Your task to perform on an android device: Go to CNN.com Image 0: 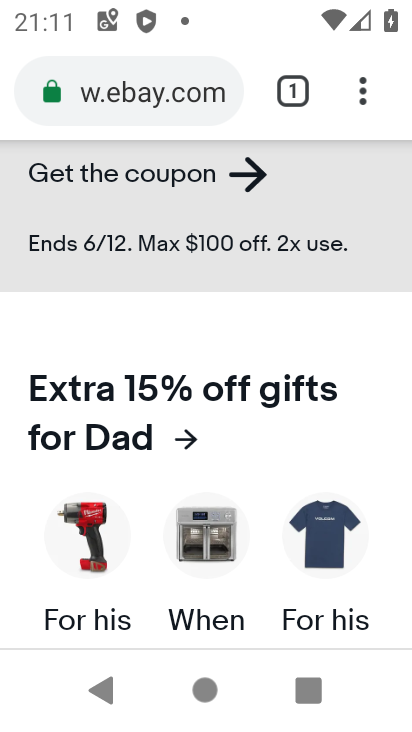
Step 0: press home button
Your task to perform on an android device: Go to CNN.com Image 1: 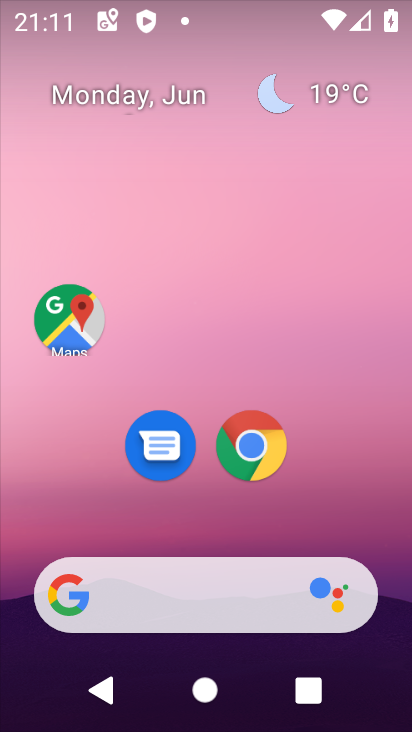
Step 1: click (257, 435)
Your task to perform on an android device: Go to CNN.com Image 2: 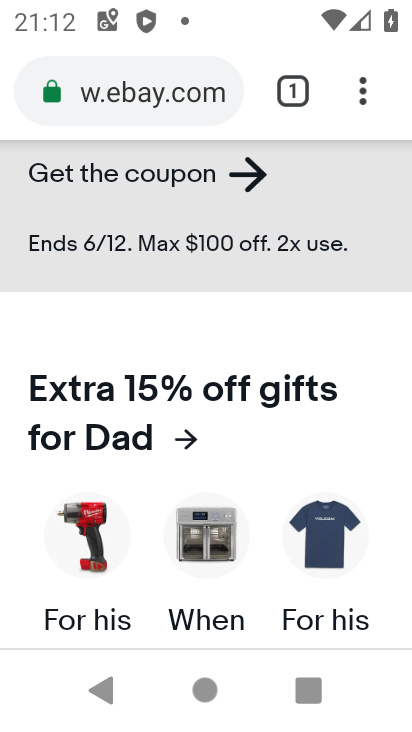
Step 2: click (294, 90)
Your task to perform on an android device: Go to CNN.com Image 3: 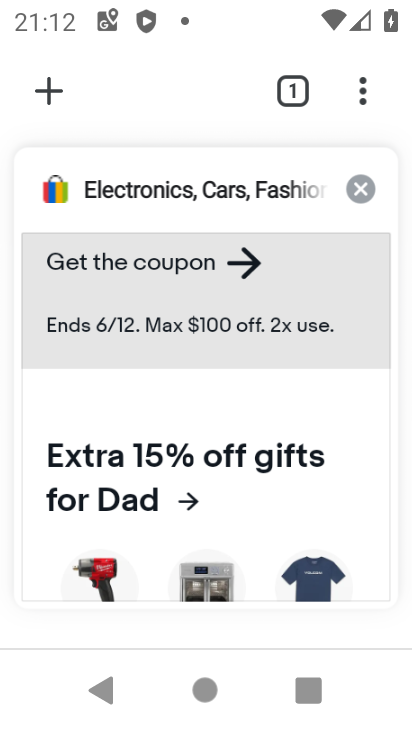
Step 3: click (367, 186)
Your task to perform on an android device: Go to CNN.com Image 4: 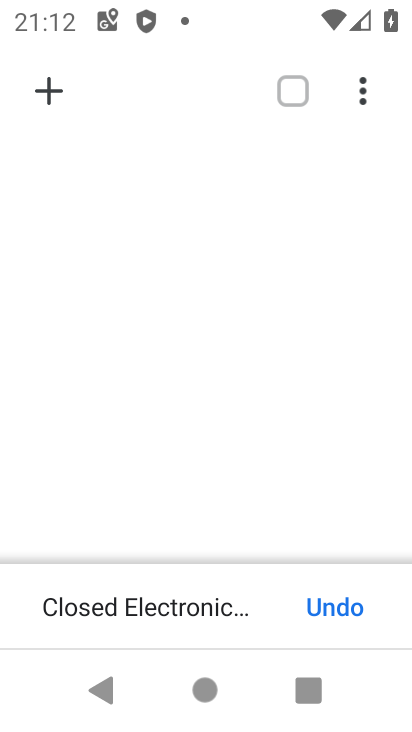
Step 4: click (54, 90)
Your task to perform on an android device: Go to CNN.com Image 5: 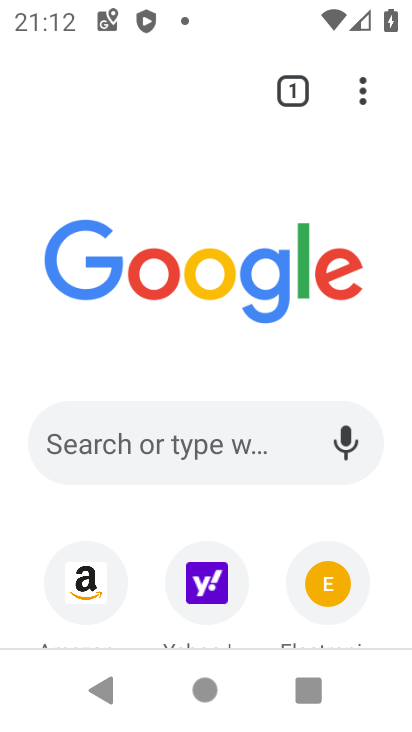
Step 5: drag from (234, 521) to (248, 225)
Your task to perform on an android device: Go to CNN.com Image 6: 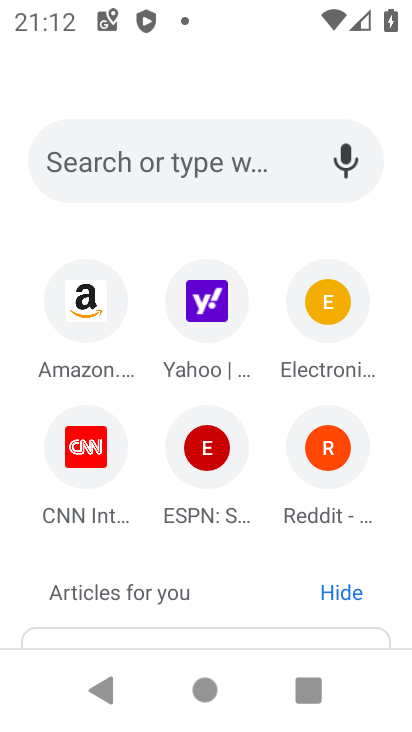
Step 6: click (82, 446)
Your task to perform on an android device: Go to CNN.com Image 7: 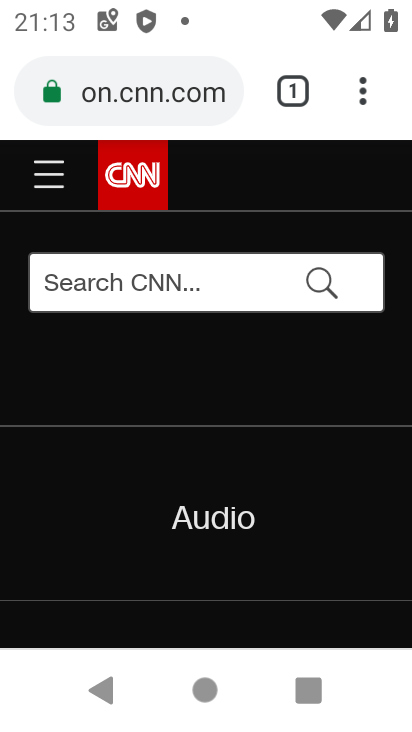
Step 7: task complete